Your task to perform on an android device: change the clock display to digital Image 0: 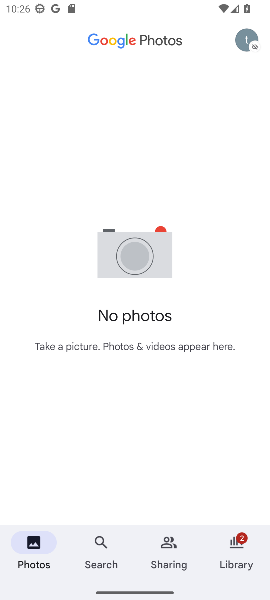
Step 0: press home button
Your task to perform on an android device: change the clock display to digital Image 1: 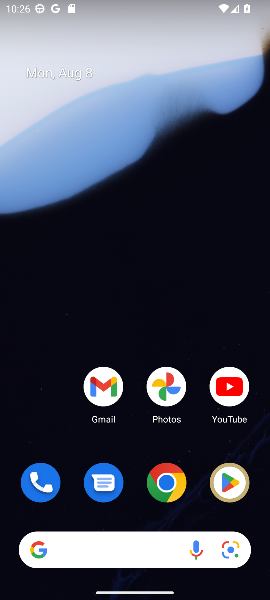
Step 1: drag from (119, 453) to (188, 23)
Your task to perform on an android device: change the clock display to digital Image 2: 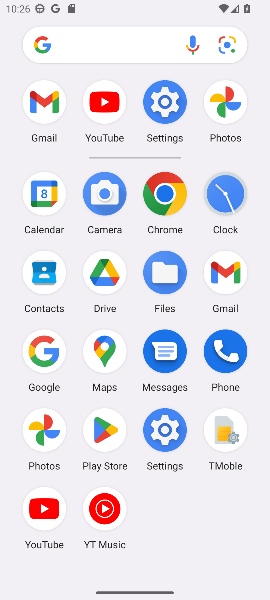
Step 2: click (222, 193)
Your task to perform on an android device: change the clock display to digital Image 3: 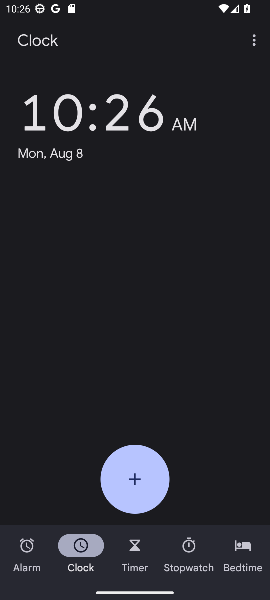
Step 3: click (256, 44)
Your task to perform on an android device: change the clock display to digital Image 4: 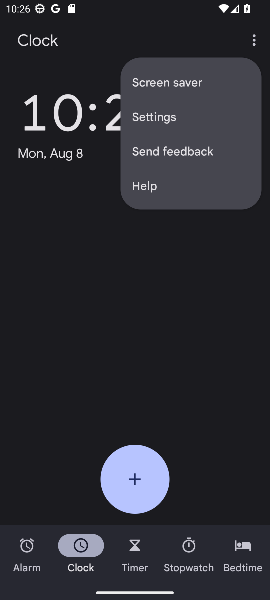
Step 4: click (189, 117)
Your task to perform on an android device: change the clock display to digital Image 5: 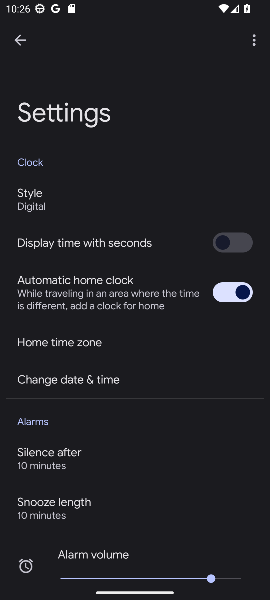
Step 5: task complete